Your task to perform on an android device: Go to ESPN.com Image 0: 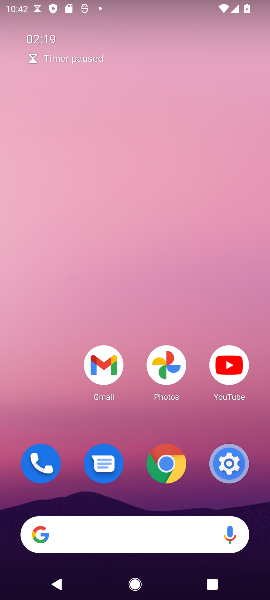
Step 0: click (85, 532)
Your task to perform on an android device: Go to ESPN.com Image 1: 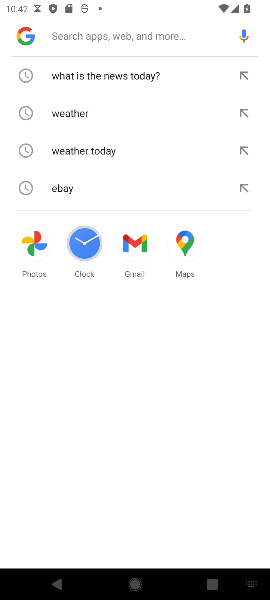
Step 1: type "ESPN.com"
Your task to perform on an android device: Go to ESPN.com Image 2: 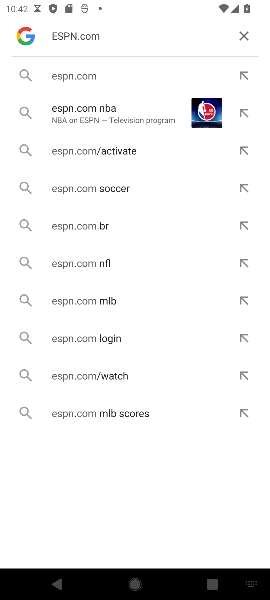
Step 2: click (87, 73)
Your task to perform on an android device: Go to ESPN.com Image 3: 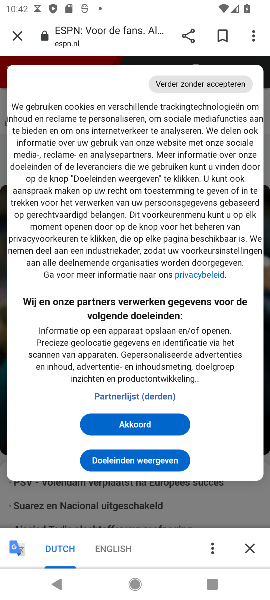
Step 3: task complete